Your task to perform on an android device: When is my next appointment? Image 0: 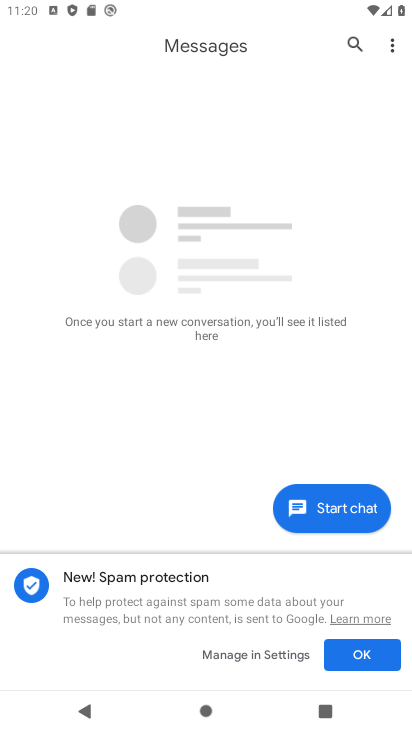
Step 0: press home button
Your task to perform on an android device: When is my next appointment? Image 1: 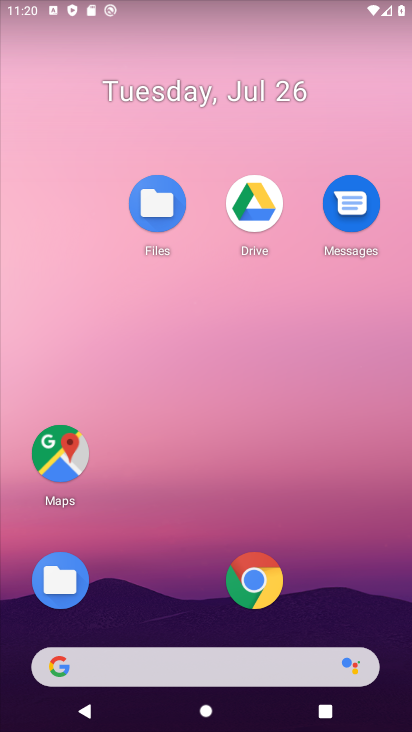
Step 1: click (179, 83)
Your task to perform on an android device: When is my next appointment? Image 2: 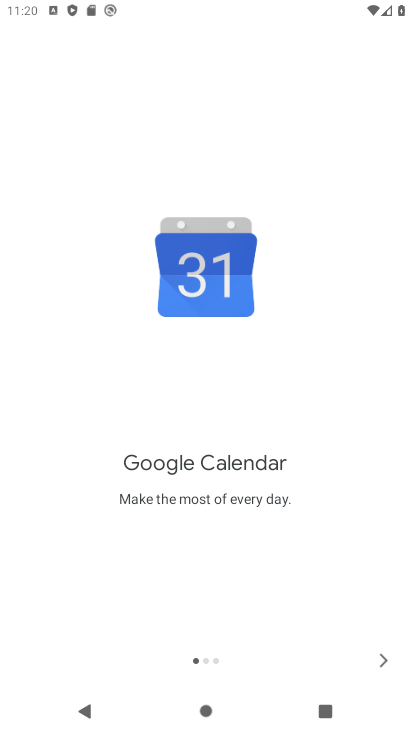
Step 2: click (391, 670)
Your task to perform on an android device: When is my next appointment? Image 3: 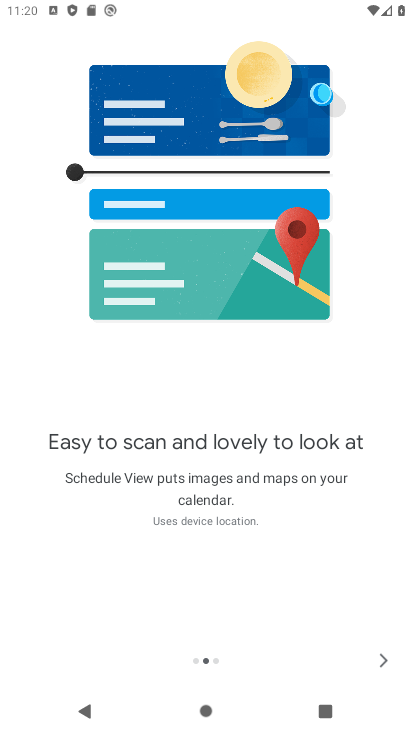
Step 3: click (391, 670)
Your task to perform on an android device: When is my next appointment? Image 4: 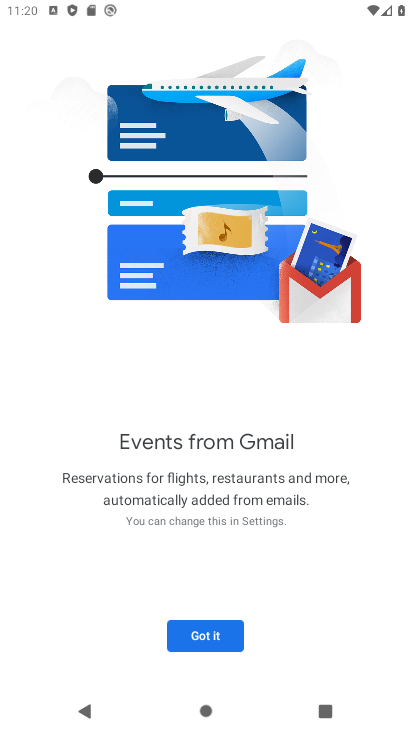
Step 4: click (213, 635)
Your task to perform on an android device: When is my next appointment? Image 5: 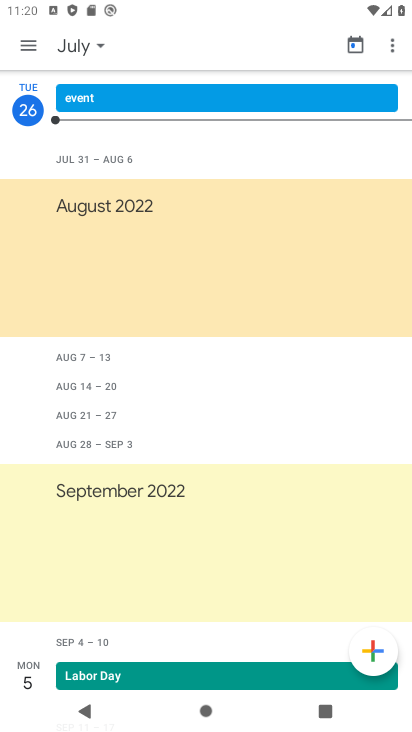
Step 5: task complete